Your task to perform on an android device: check battery use Image 0: 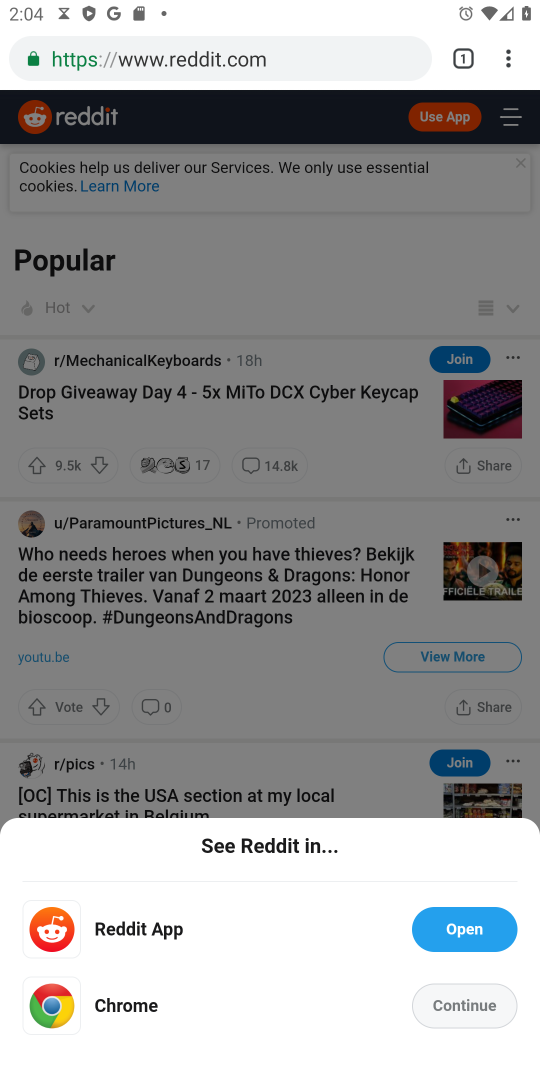
Step 0: press home button
Your task to perform on an android device: check battery use Image 1: 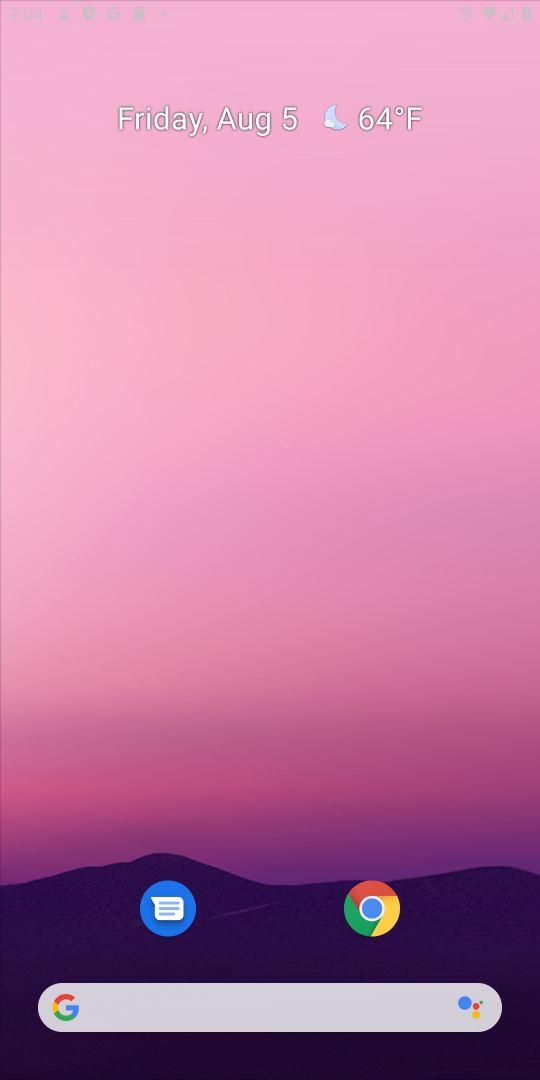
Step 1: drag from (250, 961) to (312, 378)
Your task to perform on an android device: check battery use Image 2: 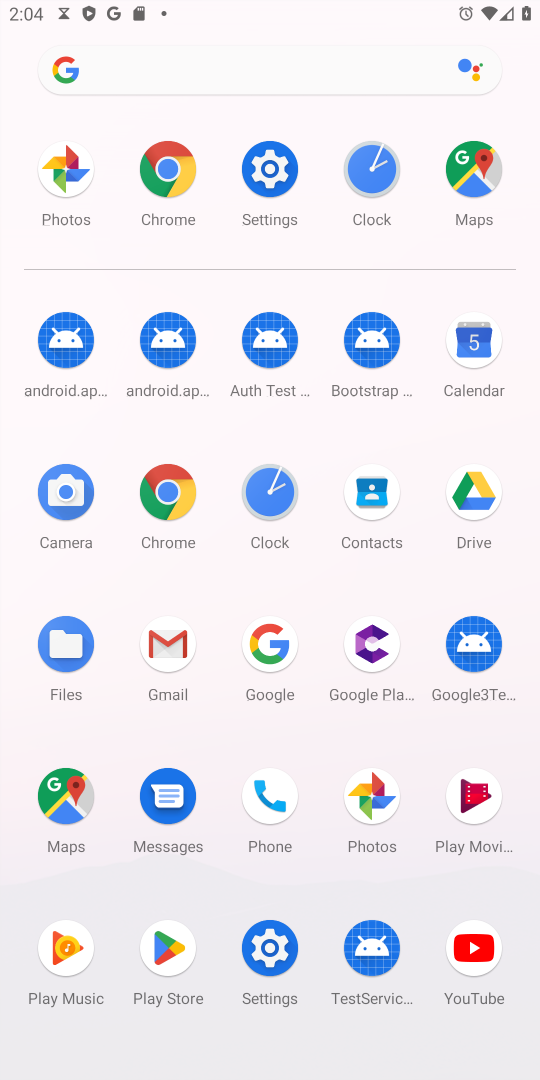
Step 2: click (258, 978)
Your task to perform on an android device: check battery use Image 3: 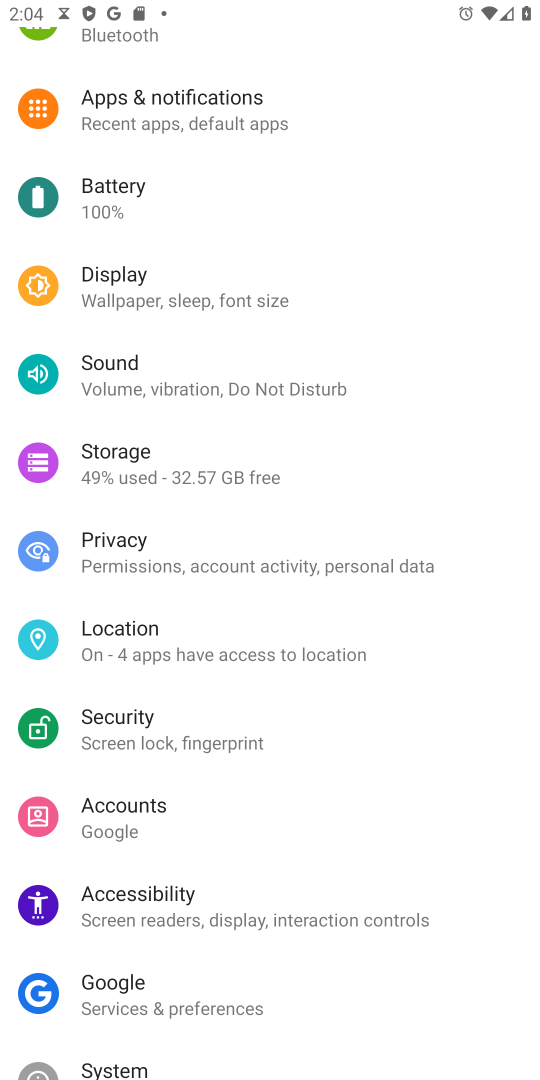
Step 3: click (110, 182)
Your task to perform on an android device: check battery use Image 4: 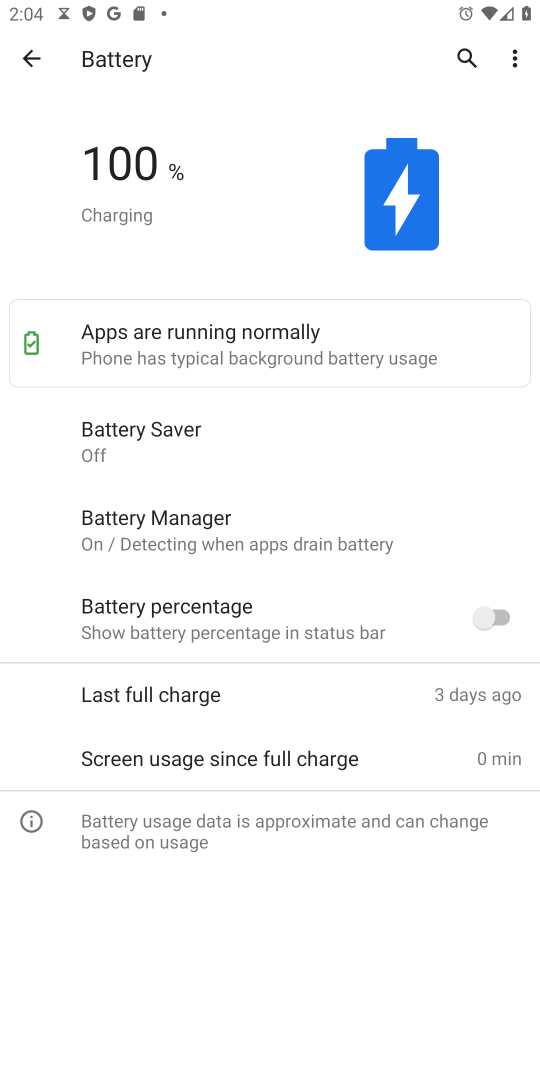
Step 4: task complete